Your task to perform on an android device: delete a single message in the gmail app Image 0: 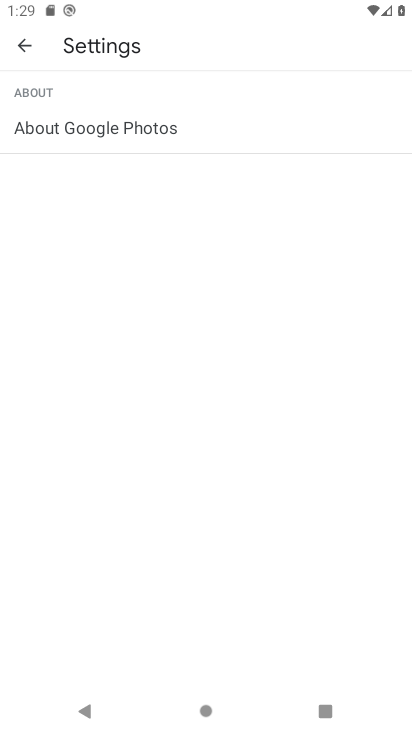
Step 0: press home button
Your task to perform on an android device: delete a single message in the gmail app Image 1: 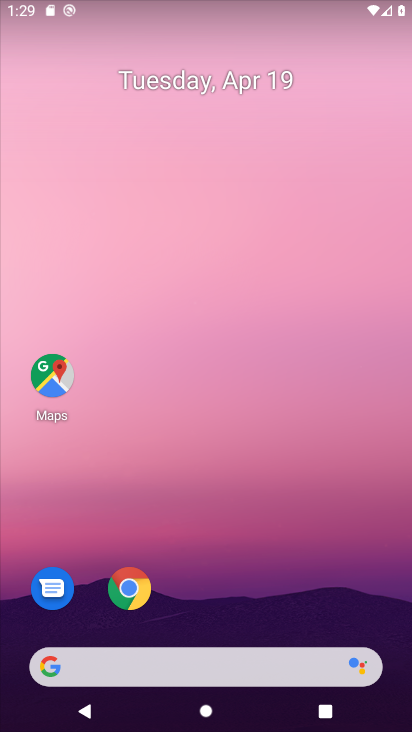
Step 1: drag from (194, 610) to (210, 177)
Your task to perform on an android device: delete a single message in the gmail app Image 2: 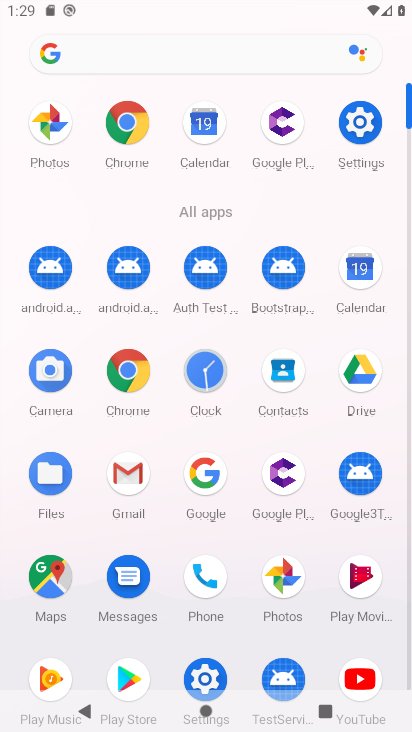
Step 2: click (126, 473)
Your task to perform on an android device: delete a single message in the gmail app Image 3: 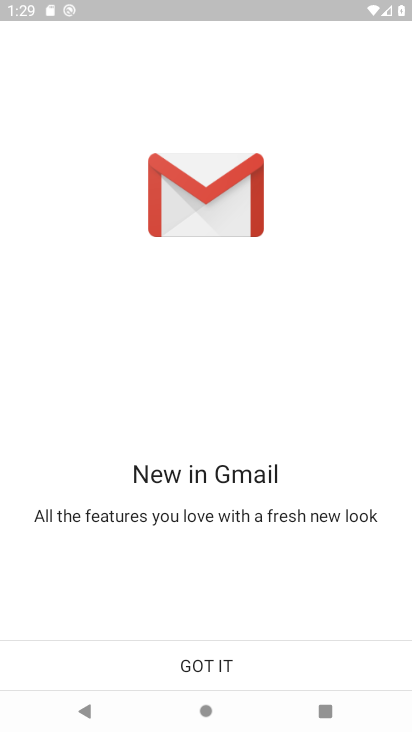
Step 3: click (206, 655)
Your task to perform on an android device: delete a single message in the gmail app Image 4: 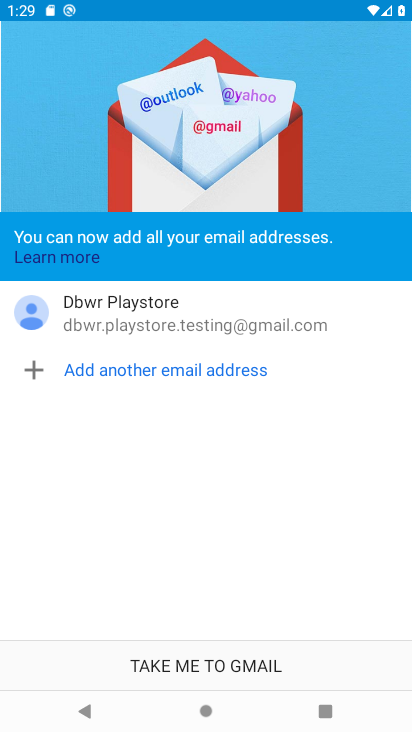
Step 4: click (206, 655)
Your task to perform on an android device: delete a single message in the gmail app Image 5: 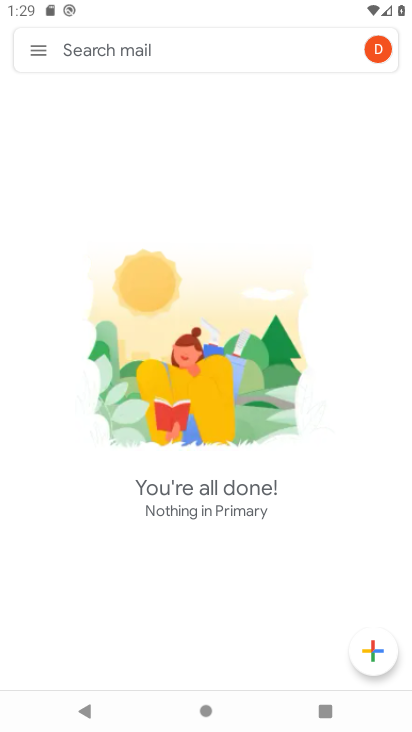
Step 5: task complete